Your task to perform on an android device: turn off data saver in the chrome app Image 0: 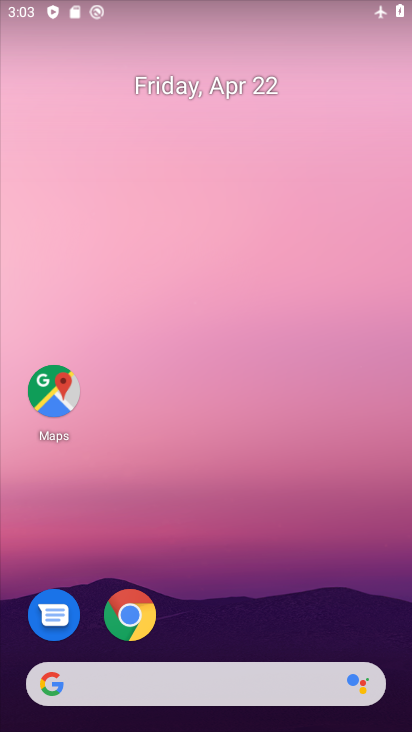
Step 0: click (128, 615)
Your task to perform on an android device: turn off data saver in the chrome app Image 1: 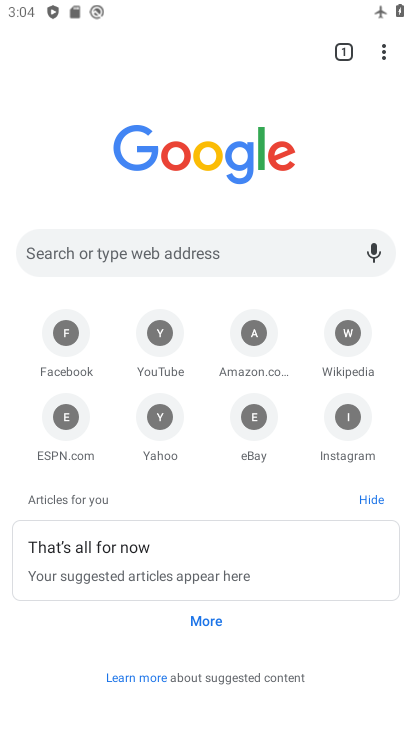
Step 1: click (383, 50)
Your task to perform on an android device: turn off data saver in the chrome app Image 2: 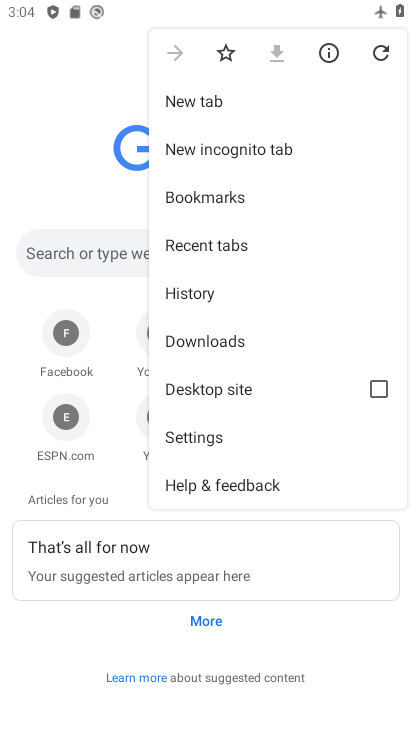
Step 2: click (190, 434)
Your task to perform on an android device: turn off data saver in the chrome app Image 3: 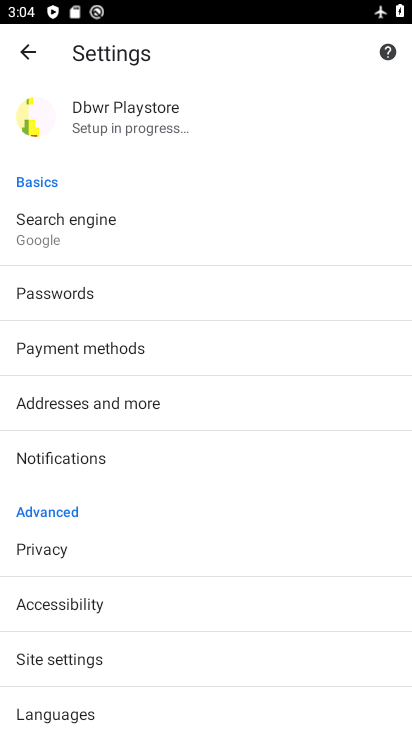
Step 3: drag from (119, 696) to (137, 450)
Your task to perform on an android device: turn off data saver in the chrome app Image 4: 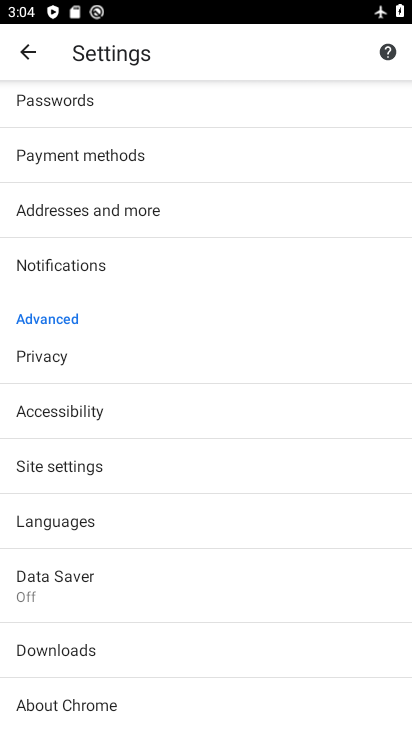
Step 4: click (64, 580)
Your task to perform on an android device: turn off data saver in the chrome app Image 5: 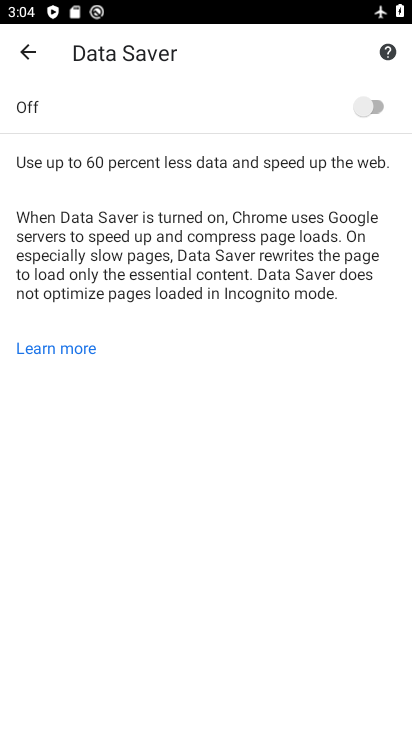
Step 5: task complete